Your task to perform on an android device: open app "VLC for Android" Image 0: 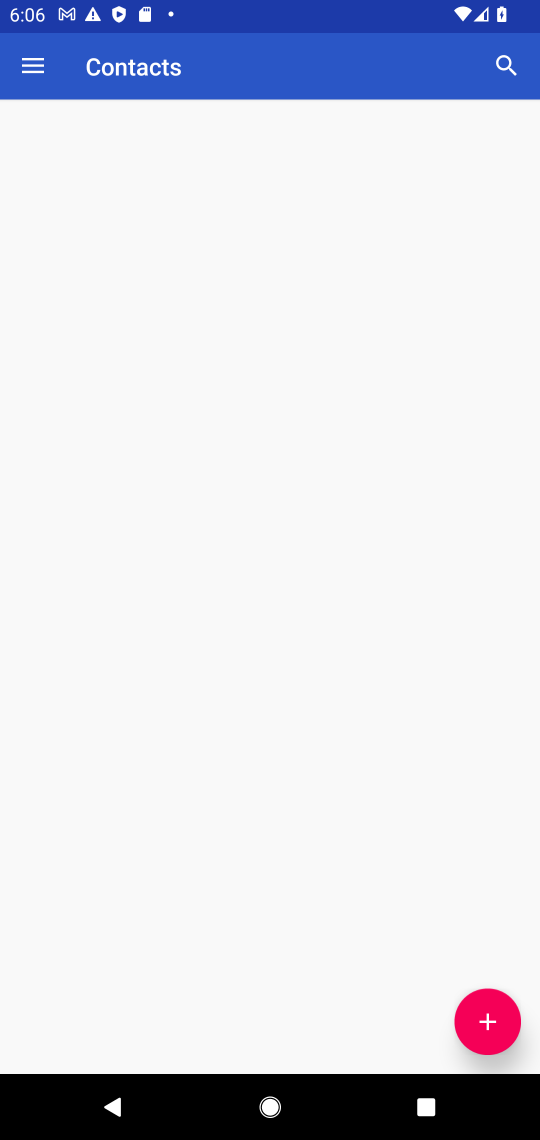
Step 0: press home button
Your task to perform on an android device: open app "VLC for Android" Image 1: 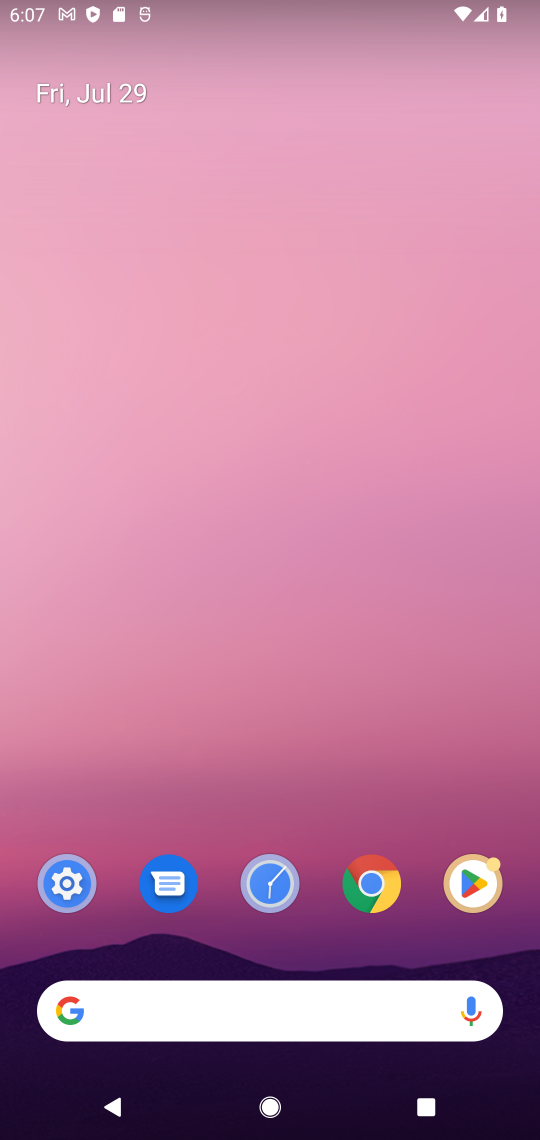
Step 1: click (480, 882)
Your task to perform on an android device: open app "VLC for Android" Image 2: 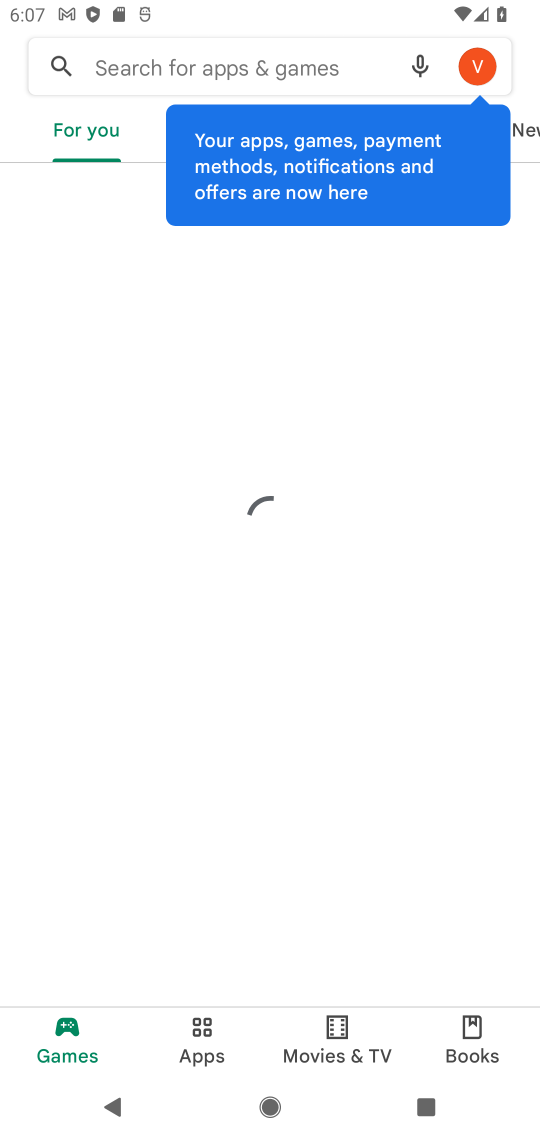
Step 2: click (276, 62)
Your task to perform on an android device: open app "VLC for Android" Image 3: 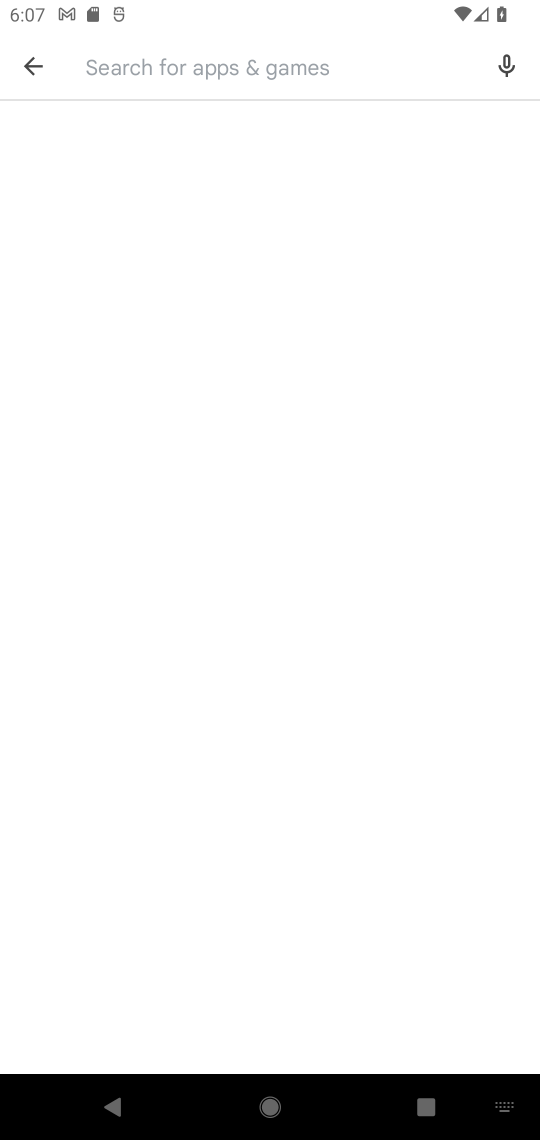
Step 3: type "vlc for android"
Your task to perform on an android device: open app "VLC for Android" Image 4: 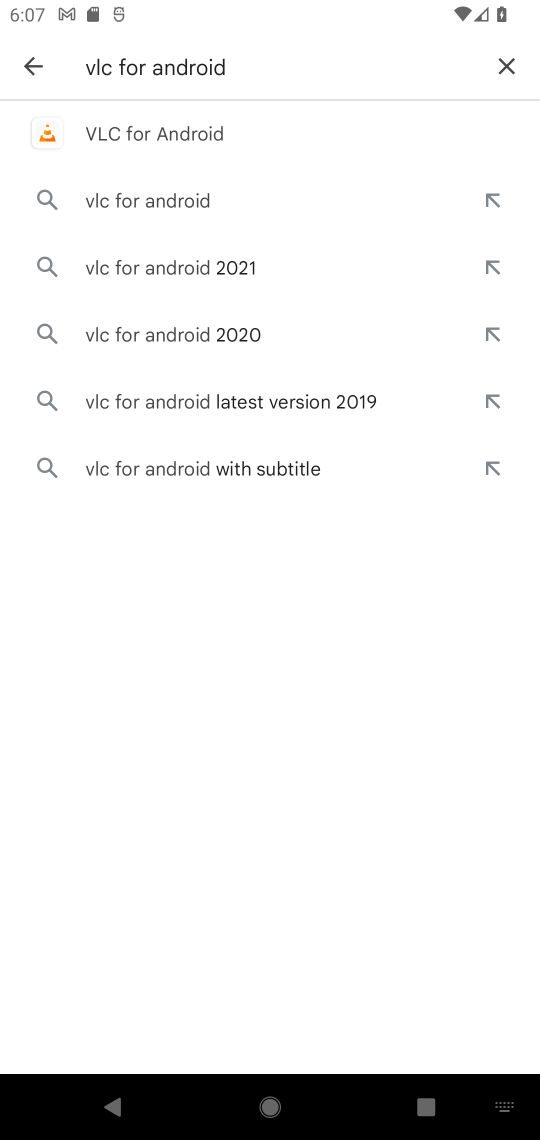
Step 4: click (241, 142)
Your task to perform on an android device: open app "VLC for Android" Image 5: 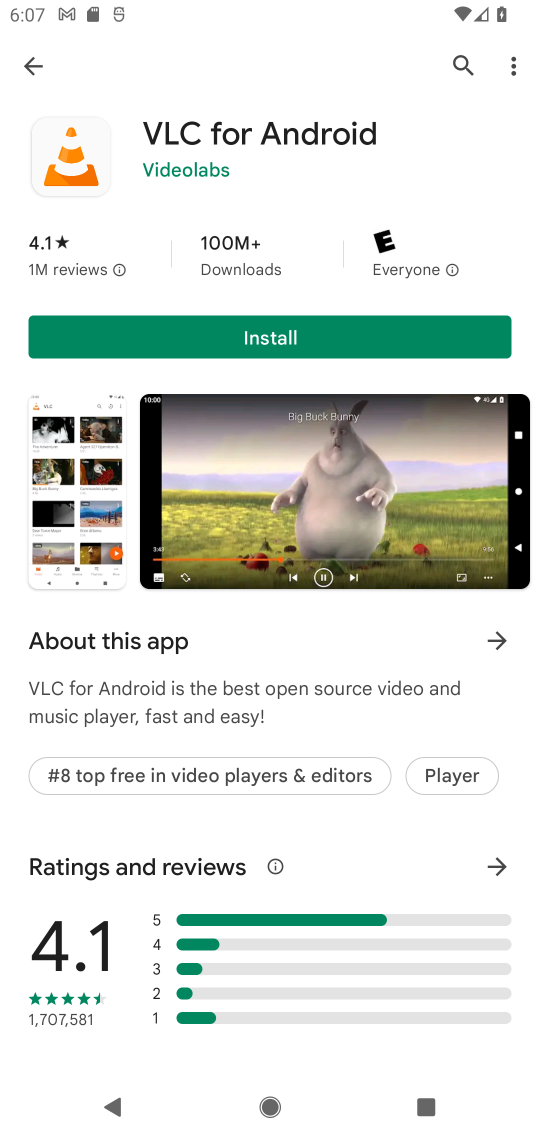
Step 5: task complete